Your task to perform on an android device: Is it going to rain this weekend? Image 0: 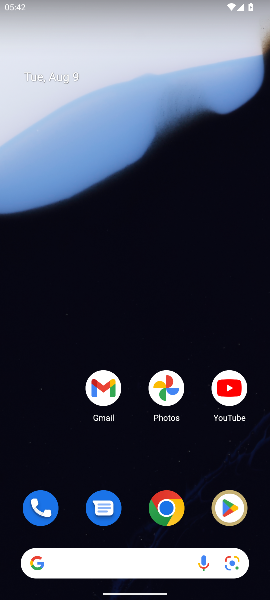
Step 0: drag from (152, 461) to (130, 72)
Your task to perform on an android device: Is it going to rain this weekend? Image 1: 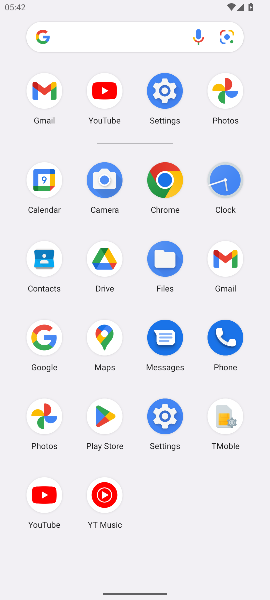
Step 1: click (53, 329)
Your task to perform on an android device: Is it going to rain this weekend? Image 2: 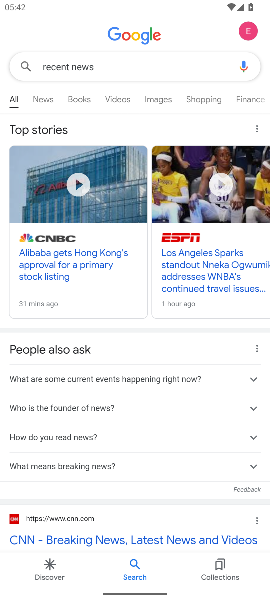
Step 2: click (132, 56)
Your task to perform on an android device: Is it going to rain this weekend? Image 3: 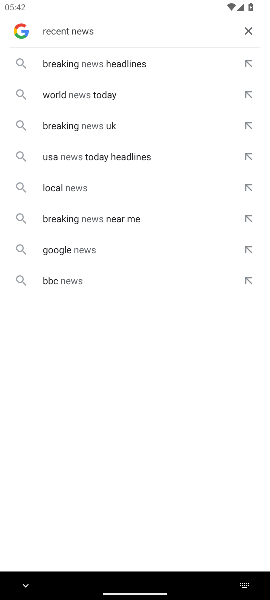
Step 3: click (248, 30)
Your task to perform on an android device: Is it going to rain this weekend? Image 4: 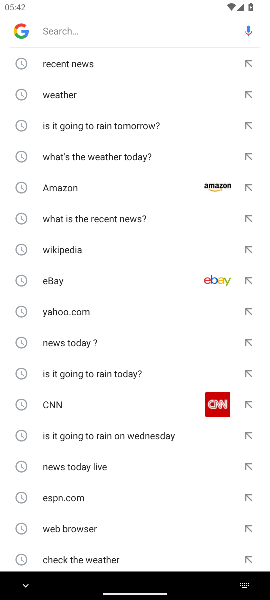
Step 4: type "is it going to rain this weekend"
Your task to perform on an android device: Is it going to rain this weekend? Image 5: 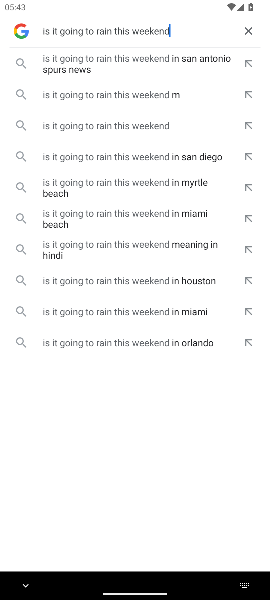
Step 5: click (167, 122)
Your task to perform on an android device: Is it going to rain this weekend? Image 6: 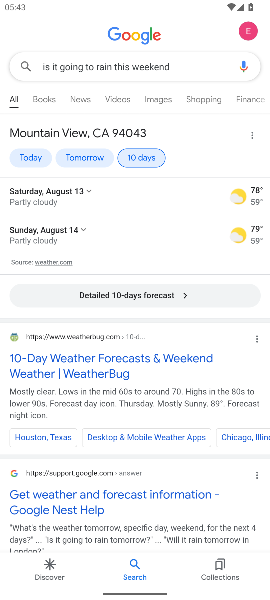
Step 6: task complete